Your task to perform on an android device: Open the calendar app, open the side menu, and click the "Day" option Image 0: 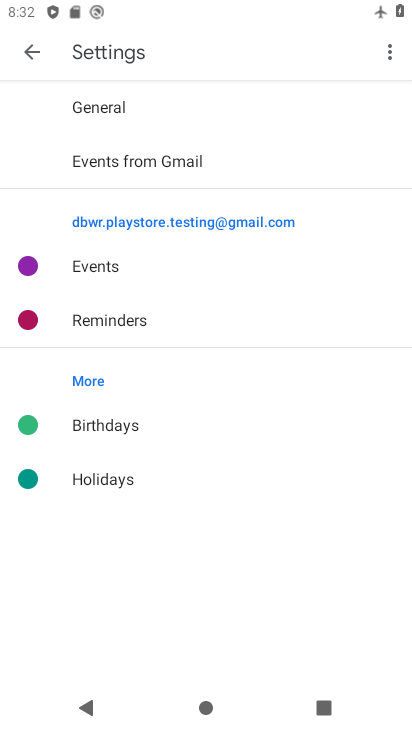
Step 0: press home button
Your task to perform on an android device: Open the calendar app, open the side menu, and click the "Day" option Image 1: 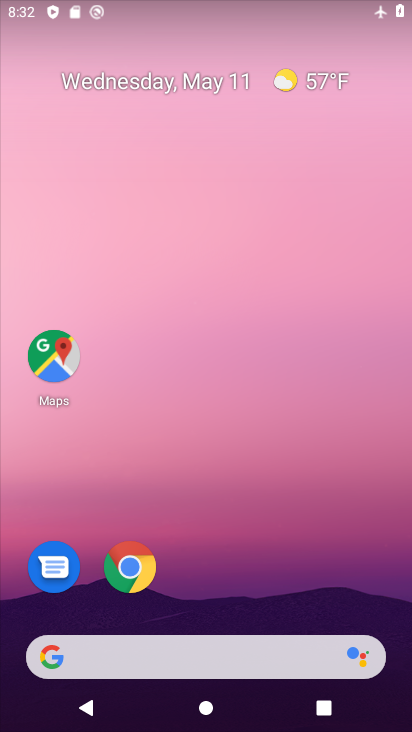
Step 1: click (147, 85)
Your task to perform on an android device: Open the calendar app, open the side menu, and click the "Day" option Image 2: 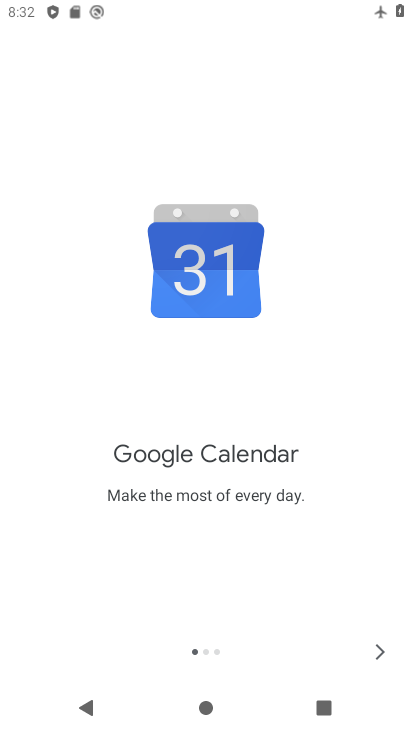
Step 2: click (369, 656)
Your task to perform on an android device: Open the calendar app, open the side menu, and click the "Day" option Image 3: 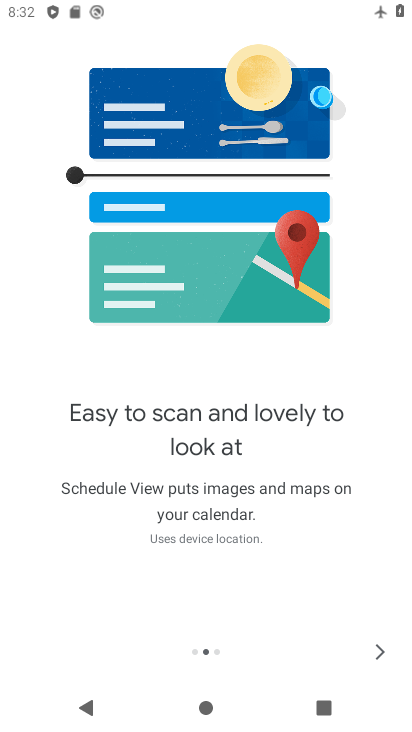
Step 3: click (379, 655)
Your task to perform on an android device: Open the calendar app, open the side menu, and click the "Day" option Image 4: 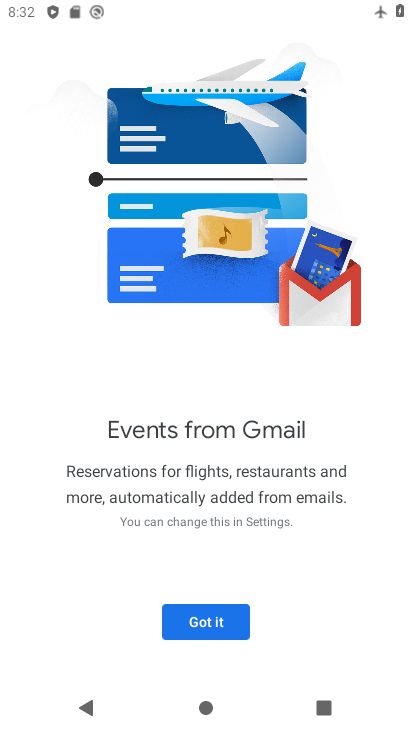
Step 4: click (218, 622)
Your task to perform on an android device: Open the calendar app, open the side menu, and click the "Day" option Image 5: 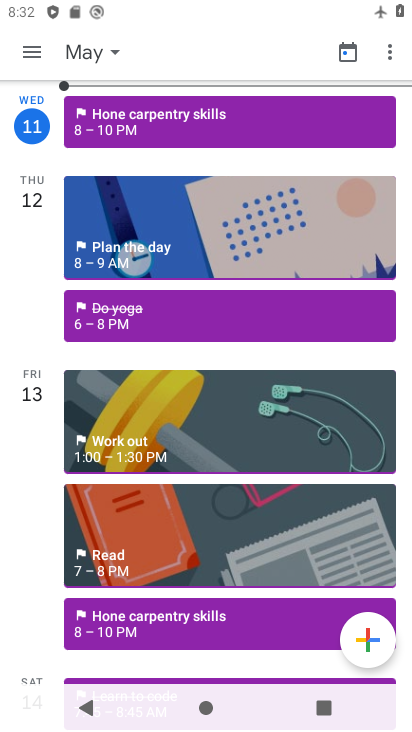
Step 5: click (29, 52)
Your task to perform on an android device: Open the calendar app, open the side menu, and click the "Day" option Image 6: 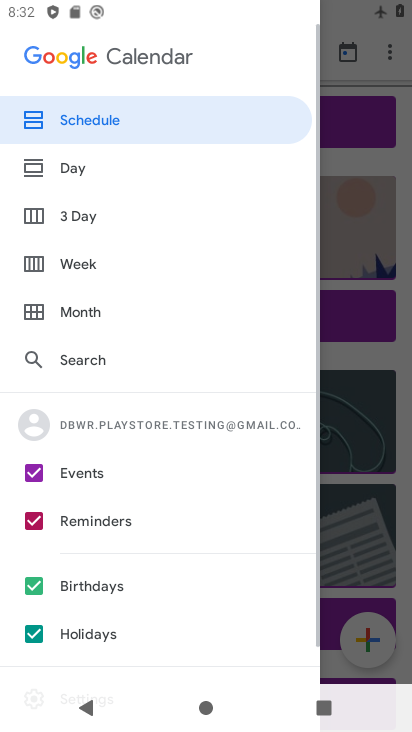
Step 6: click (94, 176)
Your task to perform on an android device: Open the calendar app, open the side menu, and click the "Day" option Image 7: 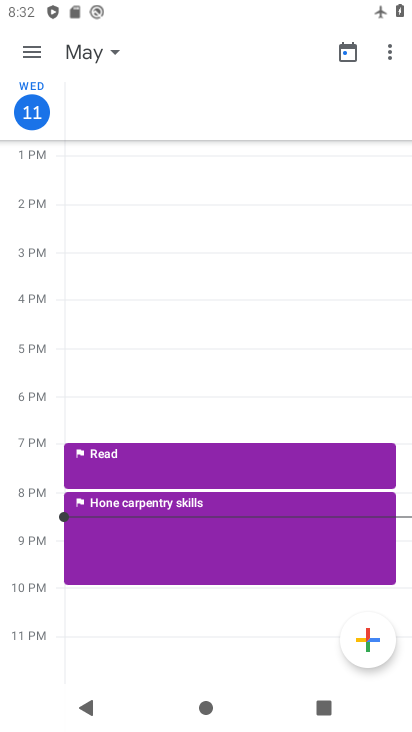
Step 7: task complete